Your task to perform on an android device: Show me popular games on the Play Store Image 0: 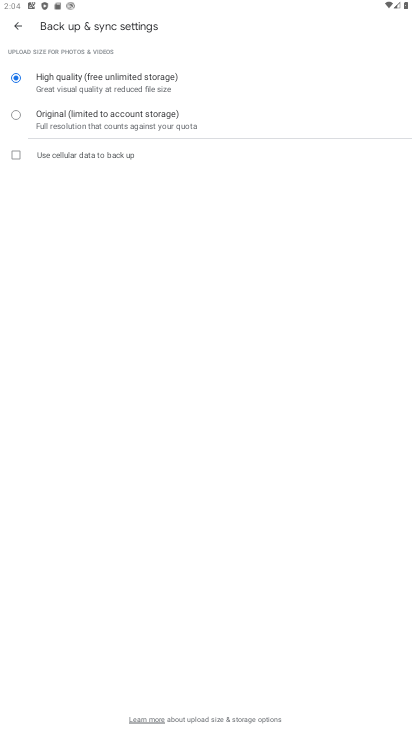
Step 0: press home button
Your task to perform on an android device: Show me popular games on the Play Store Image 1: 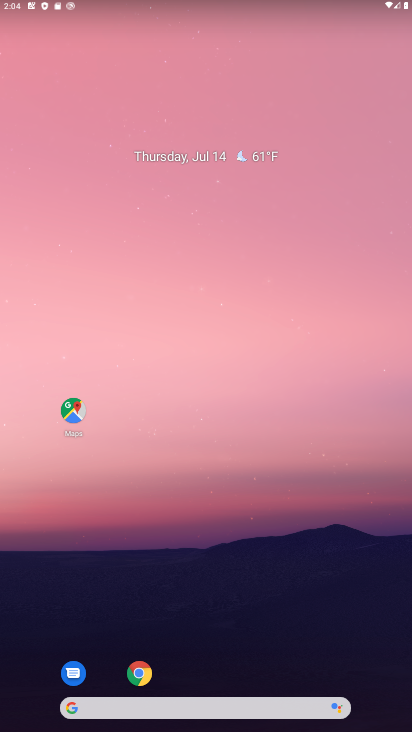
Step 1: drag from (204, 660) to (185, 84)
Your task to perform on an android device: Show me popular games on the Play Store Image 2: 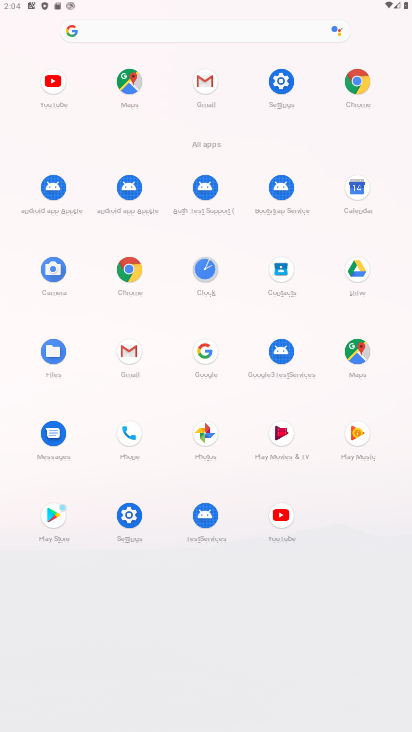
Step 2: click (275, 525)
Your task to perform on an android device: Show me popular games on the Play Store Image 3: 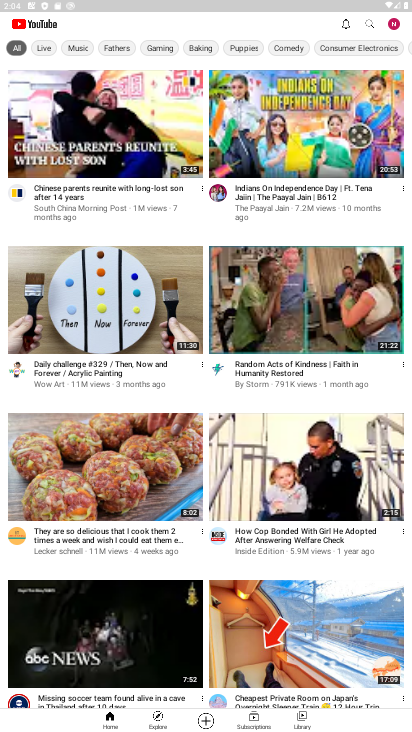
Step 3: drag from (148, 83) to (192, 669)
Your task to perform on an android device: Show me popular games on the Play Store Image 4: 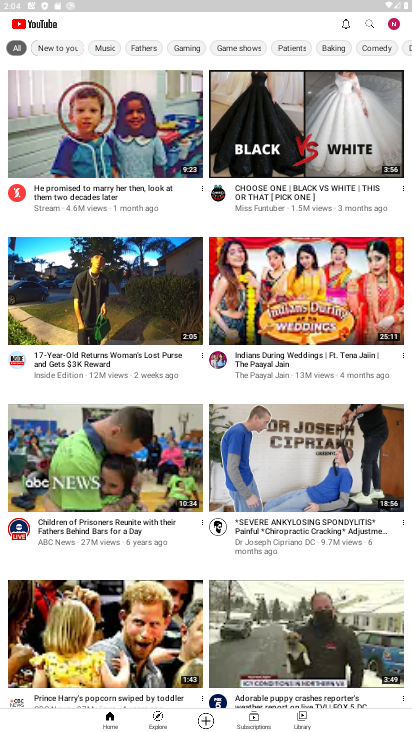
Step 4: click (154, 720)
Your task to perform on an android device: Show me popular games on the Play Store Image 5: 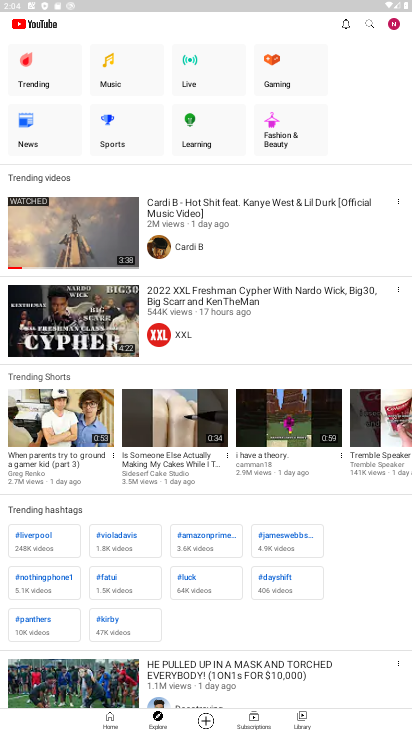
Step 5: drag from (108, 69) to (175, 536)
Your task to perform on an android device: Show me popular games on the Play Store Image 6: 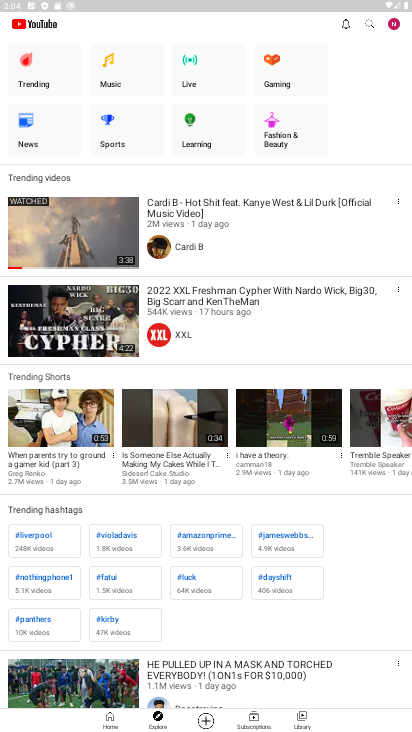
Step 6: click (39, 44)
Your task to perform on an android device: Show me popular games on the Play Store Image 7: 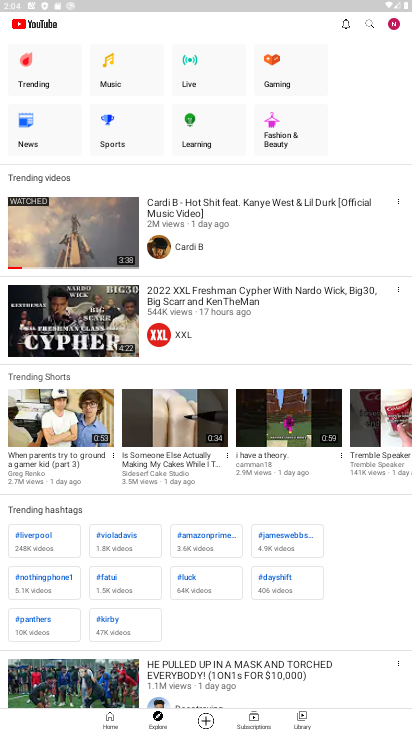
Step 7: click (41, 69)
Your task to perform on an android device: Show me popular games on the Play Store Image 8: 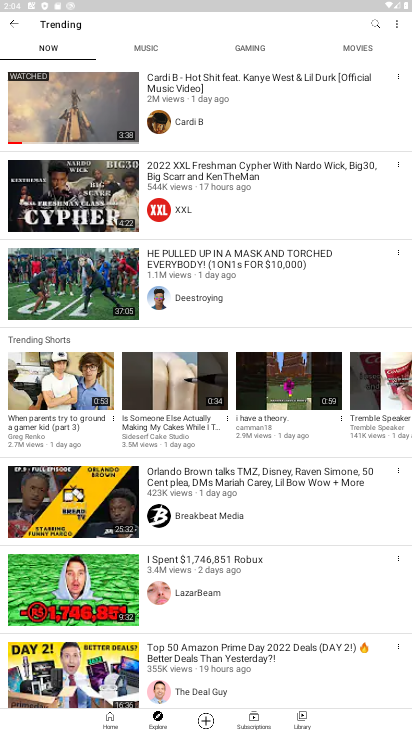
Step 8: task complete